Your task to perform on an android device: What's on my calendar today? Image 0: 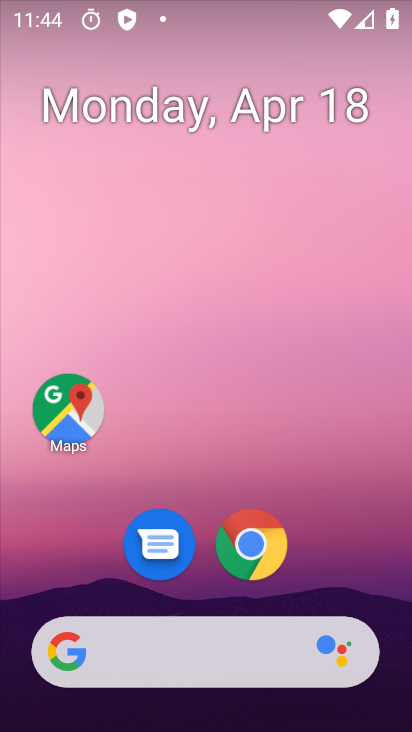
Step 0: drag from (383, 582) to (245, 1)
Your task to perform on an android device: What's on my calendar today? Image 1: 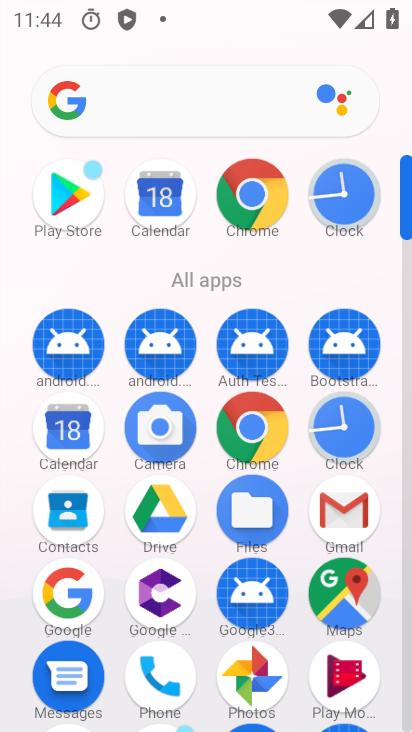
Step 1: click (69, 428)
Your task to perform on an android device: What's on my calendar today? Image 2: 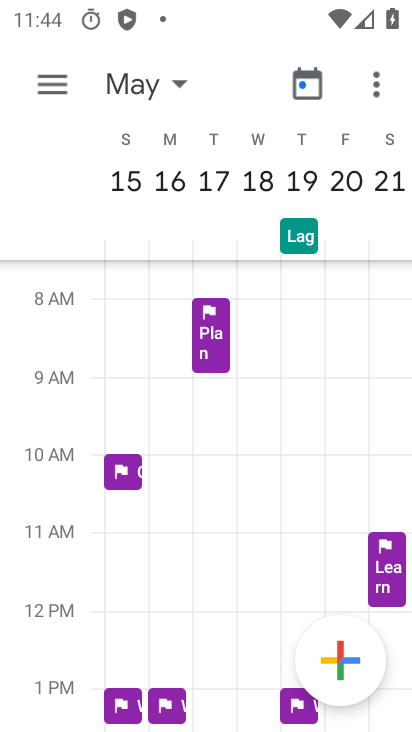
Step 2: click (172, 81)
Your task to perform on an android device: What's on my calendar today? Image 3: 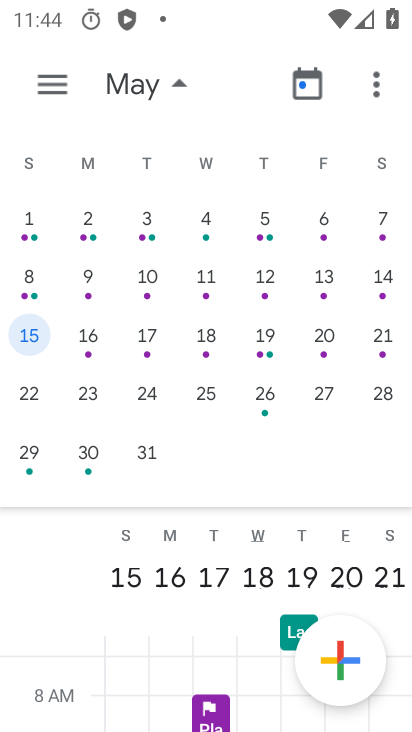
Step 3: drag from (95, 278) to (405, 301)
Your task to perform on an android device: What's on my calendar today? Image 4: 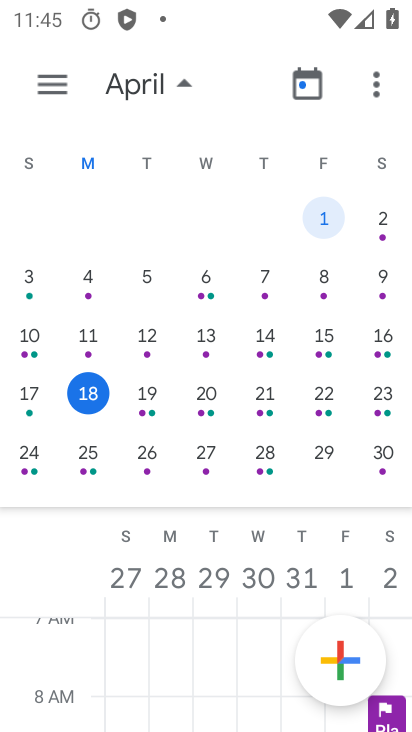
Step 4: click (52, 83)
Your task to perform on an android device: What's on my calendar today? Image 5: 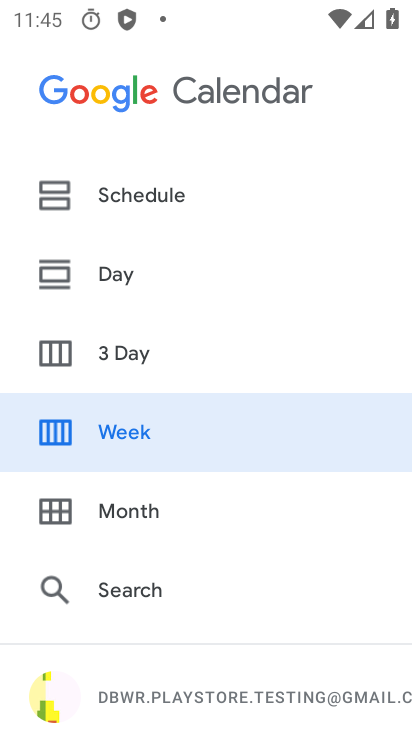
Step 5: click (67, 183)
Your task to perform on an android device: What's on my calendar today? Image 6: 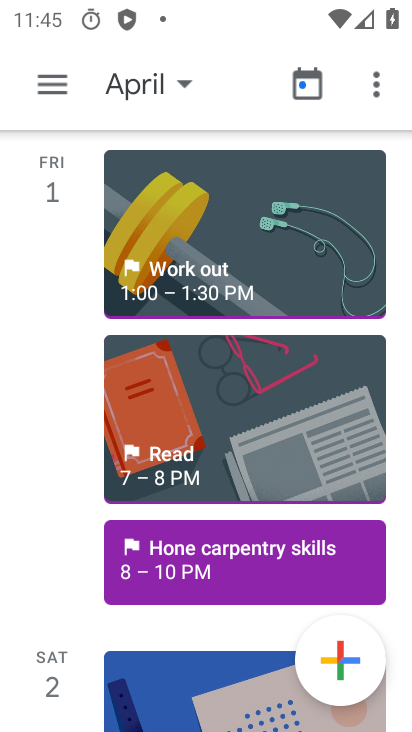
Step 6: click (186, 80)
Your task to perform on an android device: What's on my calendar today? Image 7: 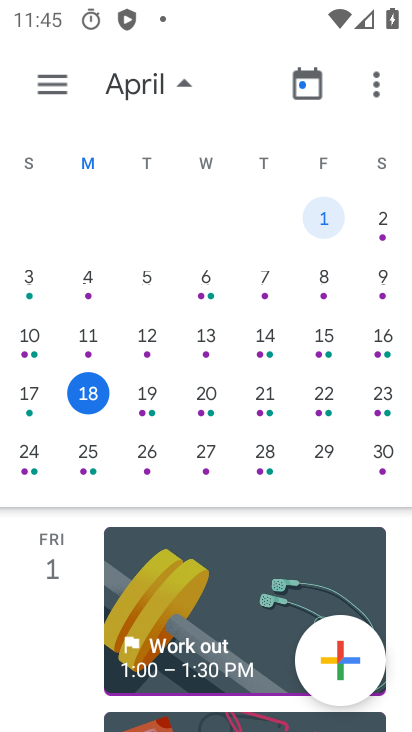
Step 7: click (87, 400)
Your task to perform on an android device: What's on my calendar today? Image 8: 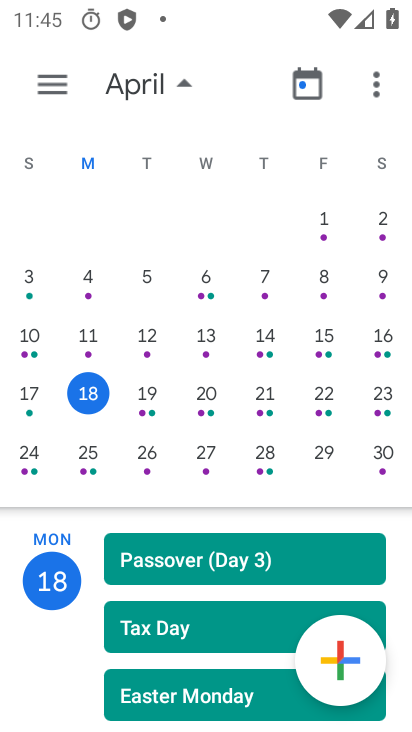
Step 8: drag from (151, 583) to (139, 263)
Your task to perform on an android device: What's on my calendar today? Image 9: 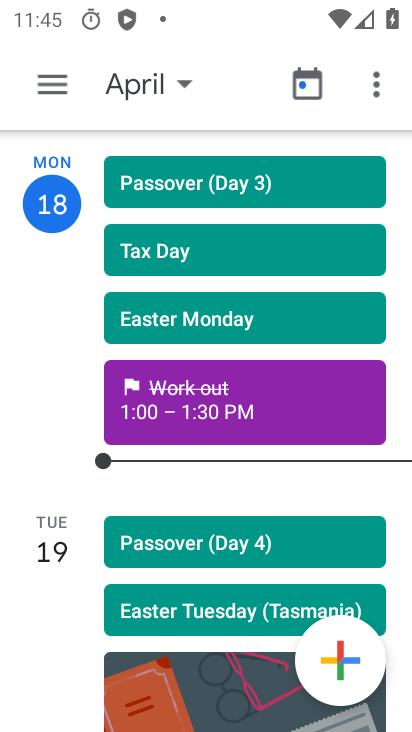
Step 9: click (177, 402)
Your task to perform on an android device: What's on my calendar today? Image 10: 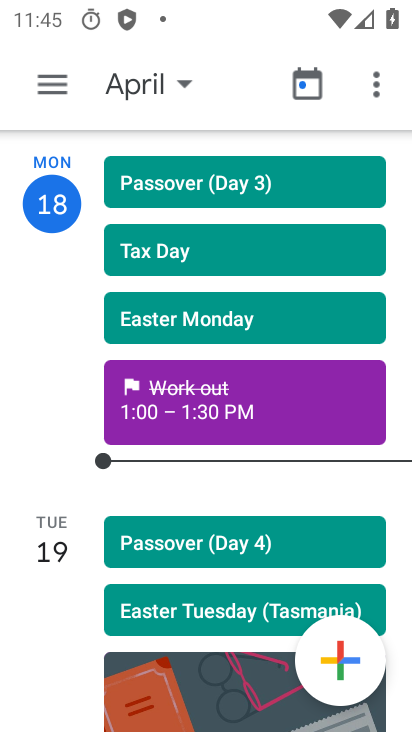
Step 10: click (214, 405)
Your task to perform on an android device: What's on my calendar today? Image 11: 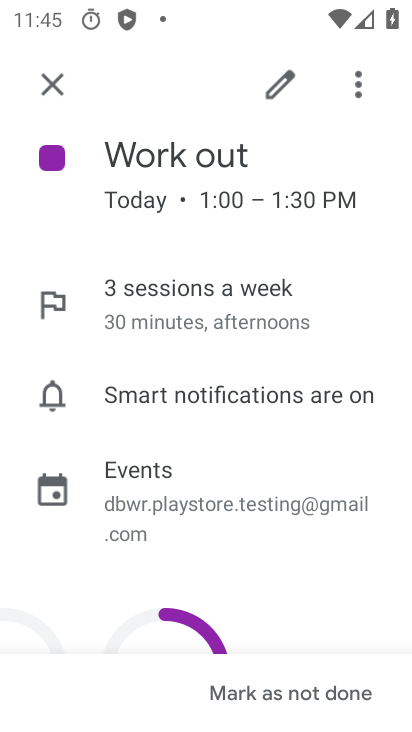
Step 11: task complete